Your task to perform on an android device: move an email to a new category in the gmail app Image 0: 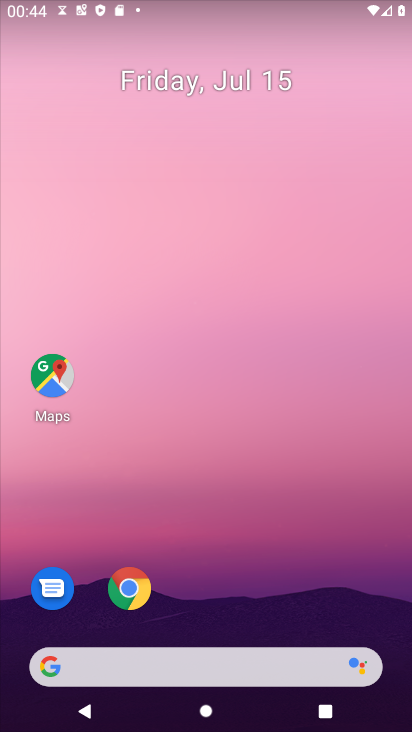
Step 0: drag from (187, 631) to (254, 50)
Your task to perform on an android device: move an email to a new category in the gmail app Image 1: 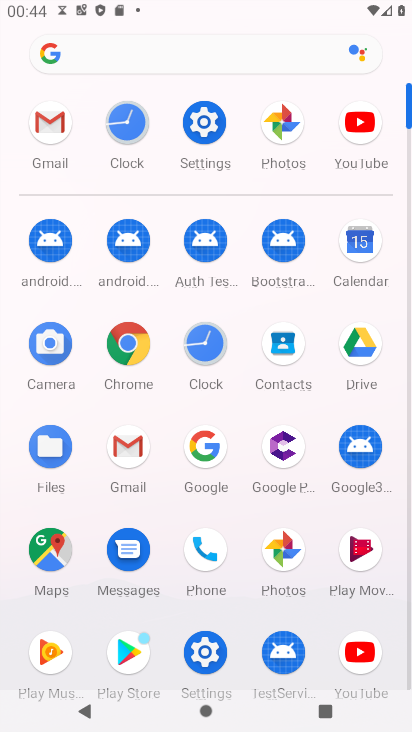
Step 1: click (60, 147)
Your task to perform on an android device: move an email to a new category in the gmail app Image 2: 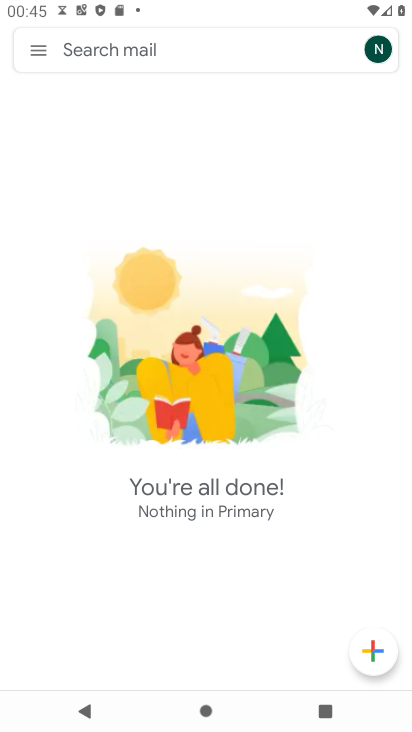
Step 2: click (26, 44)
Your task to perform on an android device: move an email to a new category in the gmail app Image 3: 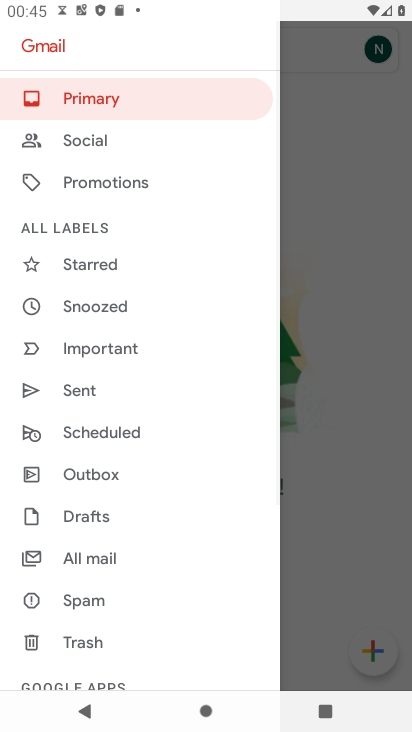
Step 3: click (80, 566)
Your task to perform on an android device: move an email to a new category in the gmail app Image 4: 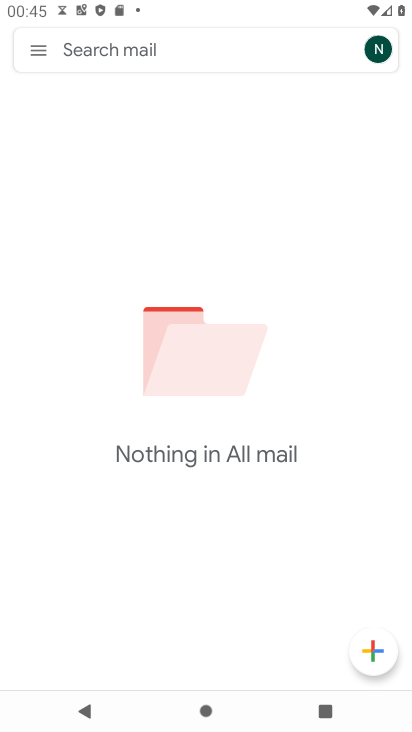
Step 4: task complete